Your task to perform on an android device: toggle show notifications on the lock screen Image 0: 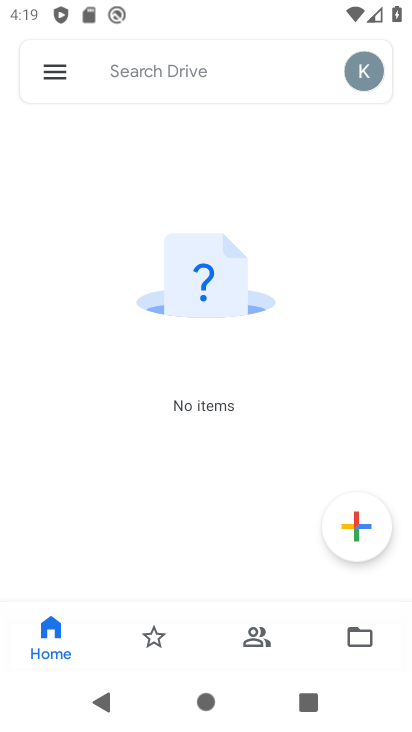
Step 0: press home button
Your task to perform on an android device: toggle show notifications on the lock screen Image 1: 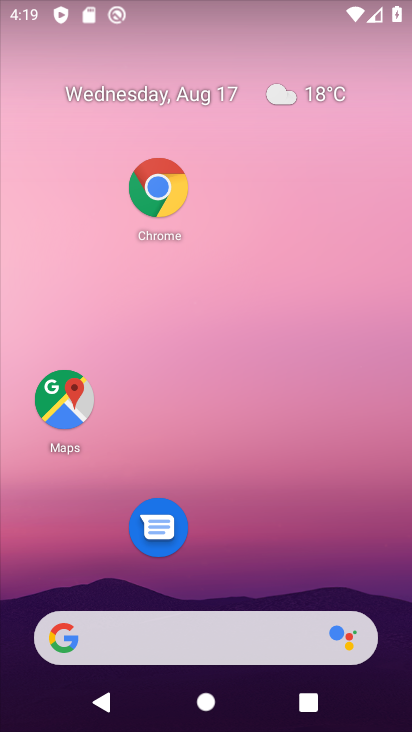
Step 1: drag from (250, 592) to (237, 72)
Your task to perform on an android device: toggle show notifications on the lock screen Image 2: 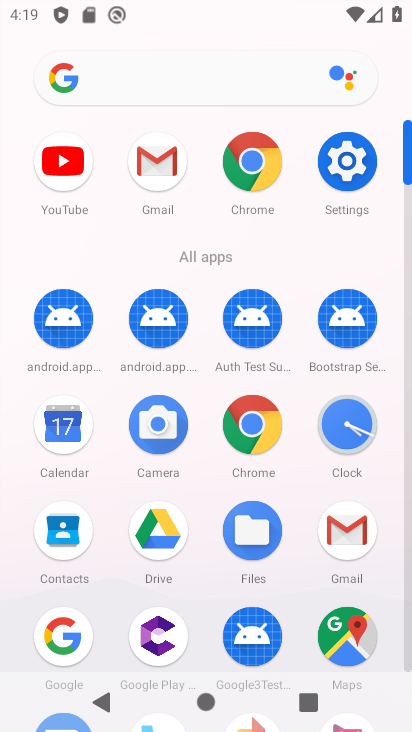
Step 2: click (341, 140)
Your task to perform on an android device: toggle show notifications on the lock screen Image 3: 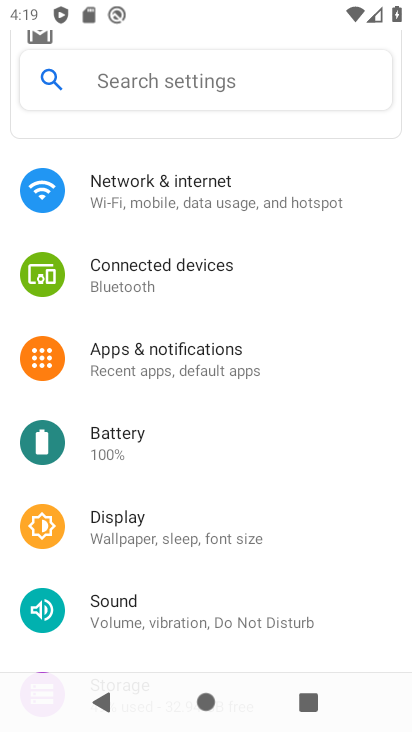
Step 3: click (203, 351)
Your task to perform on an android device: toggle show notifications on the lock screen Image 4: 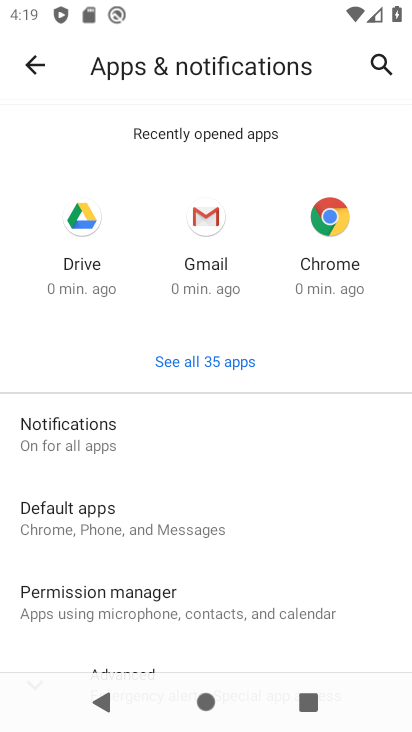
Step 4: click (134, 421)
Your task to perform on an android device: toggle show notifications on the lock screen Image 5: 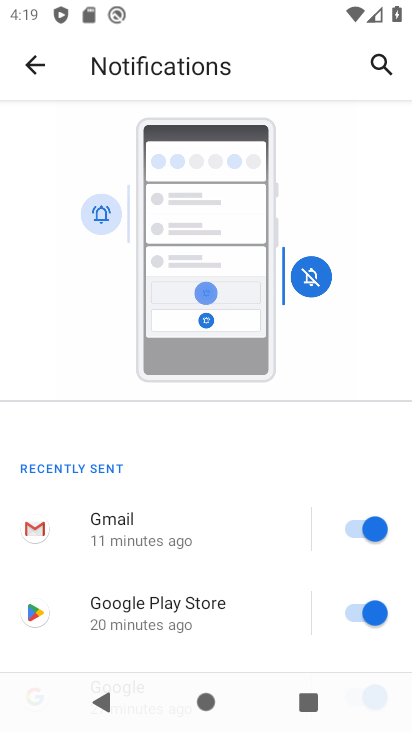
Step 5: drag from (122, 617) to (245, 25)
Your task to perform on an android device: toggle show notifications on the lock screen Image 6: 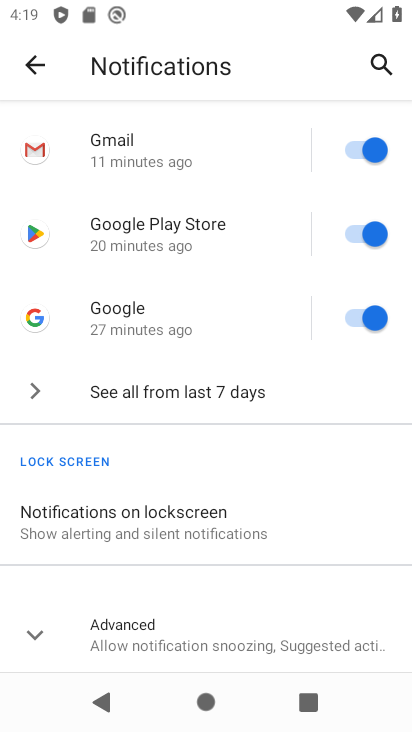
Step 6: click (180, 617)
Your task to perform on an android device: toggle show notifications on the lock screen Image 7: 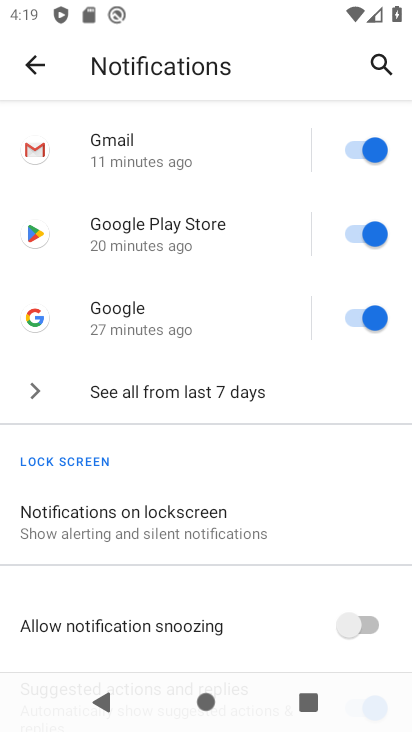
Step 7: drag from (147, 644) to (210, 140)
Your task to perform on an android device: toggle show notifications on the lock screen Image 8: 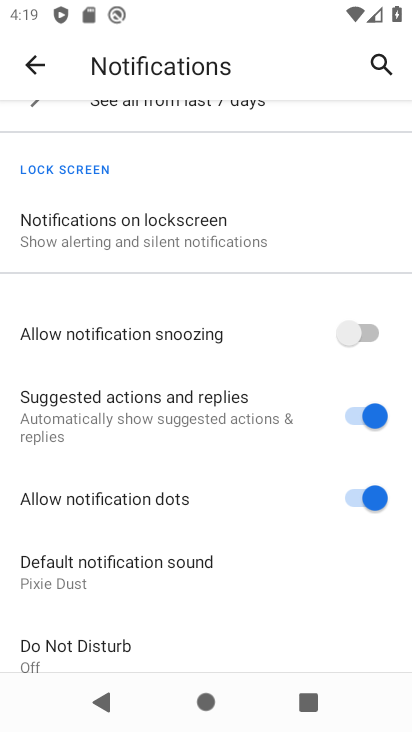
Step 8: click (182, 222)
Your task to perform on an android device: toggle show notifications on the lock screen Image 9: 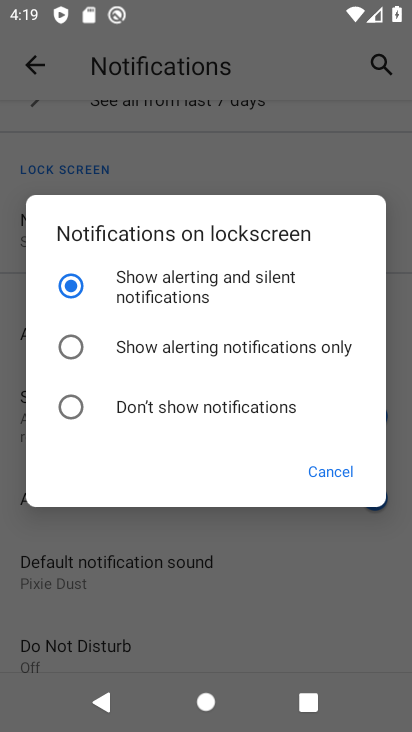
Step 9: click (285, 330)
Your task to perform on an android device: toggle show notifications on the lock screen Image 10: 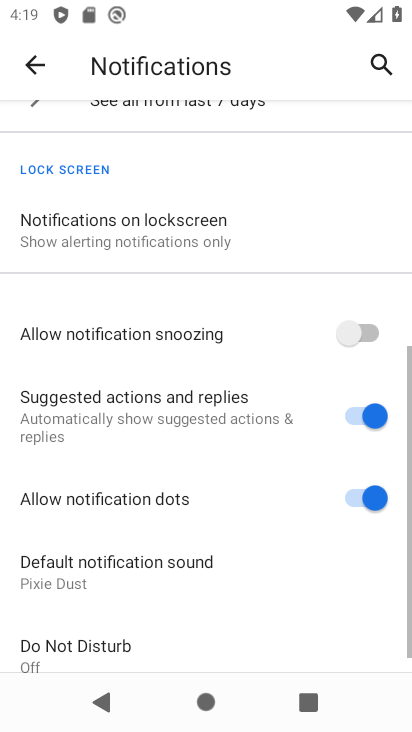
Step 10: task complete